Your task to perform on an android device: install app "PUBG MOBILE" Image 0: 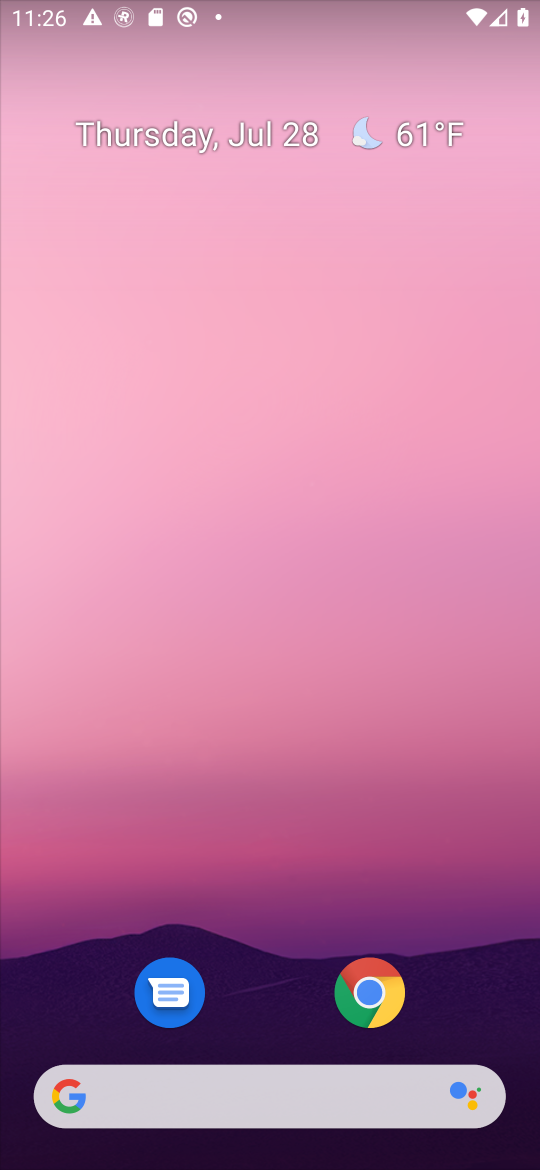
Step 0: drag from (235, 1080) to (268, 126)
Your task to perform on an android device: install app "PUBG MOBILE" Image 1: 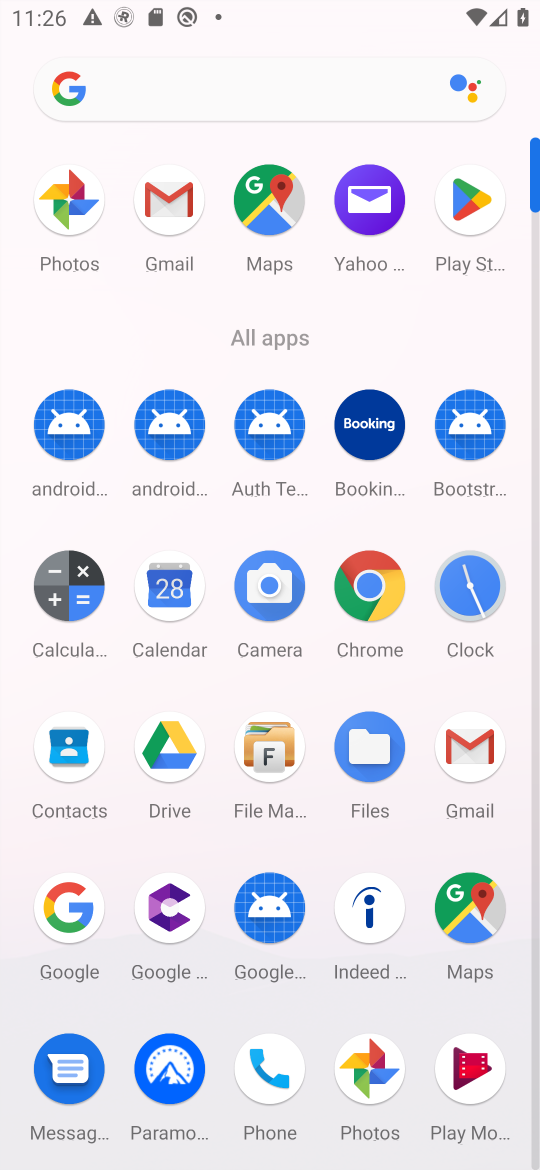
Step 1: click (472, 207)
Your task to perform on an android device: install app "PUBG MOBILE" Image 2: 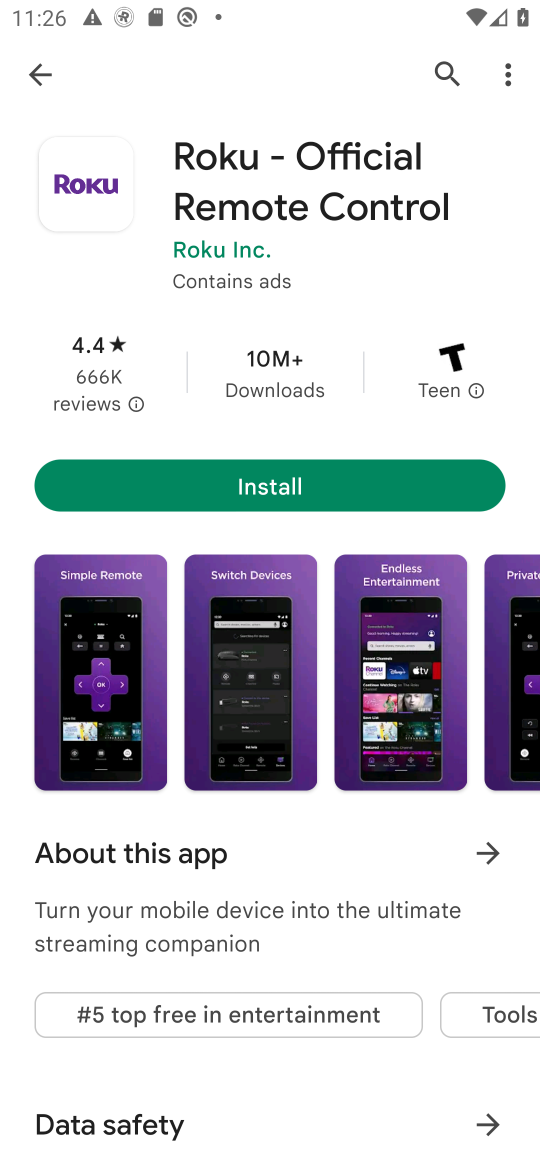
Step 2: click (450, 68)
Your task to perform on an android device: install app "PUBG MOBILE" Image 3: 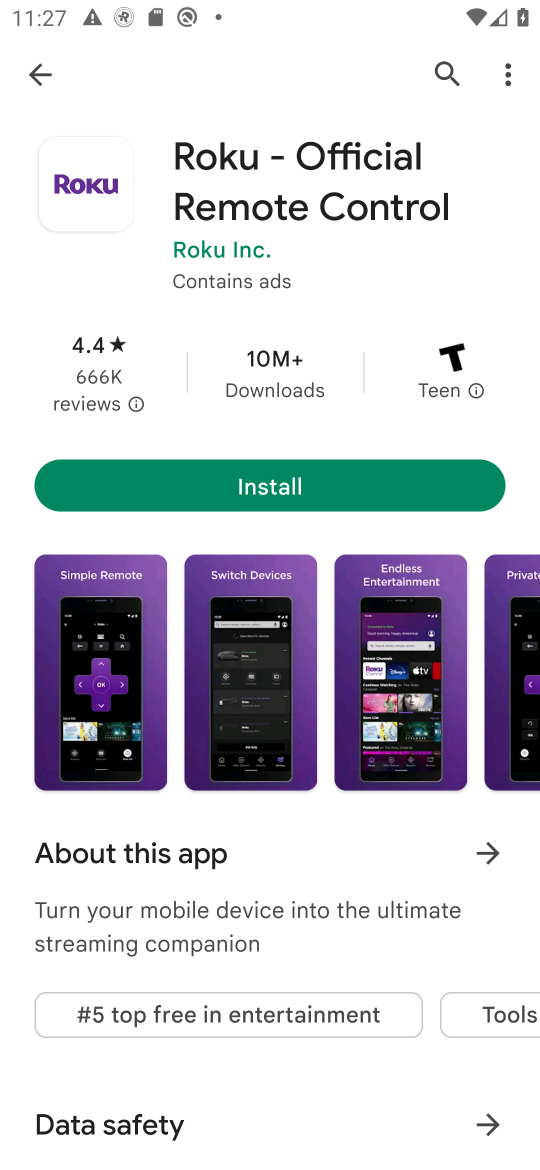
Step 3: click (446, 68)
Your task to perform on an android device: install app "PUBG MOBILE" Image 4: 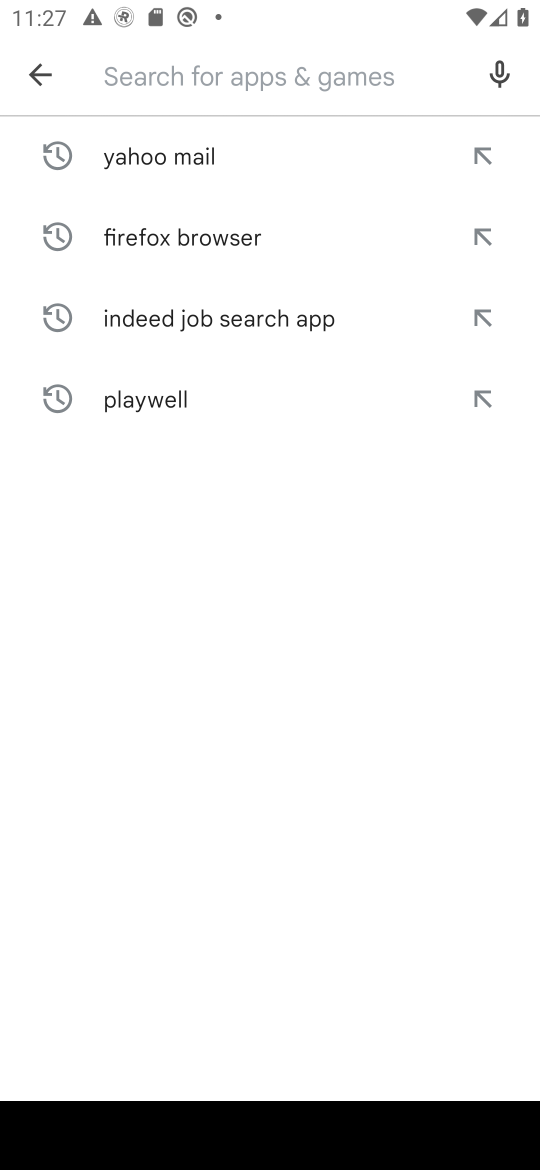
Step 4: type "PUBG MOBILE"
Your task to perform on an android device: install app "PUBG MOBILE" Image 5: 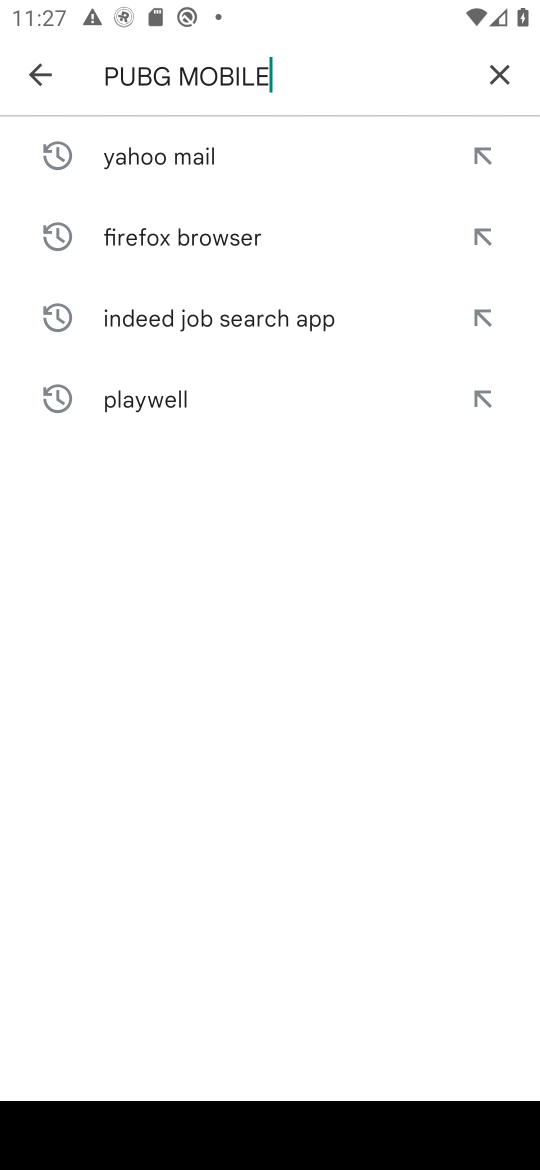
Step 5: type ""
Your task to perform on an android device: install app "PUBG MOBILE" Image 6: 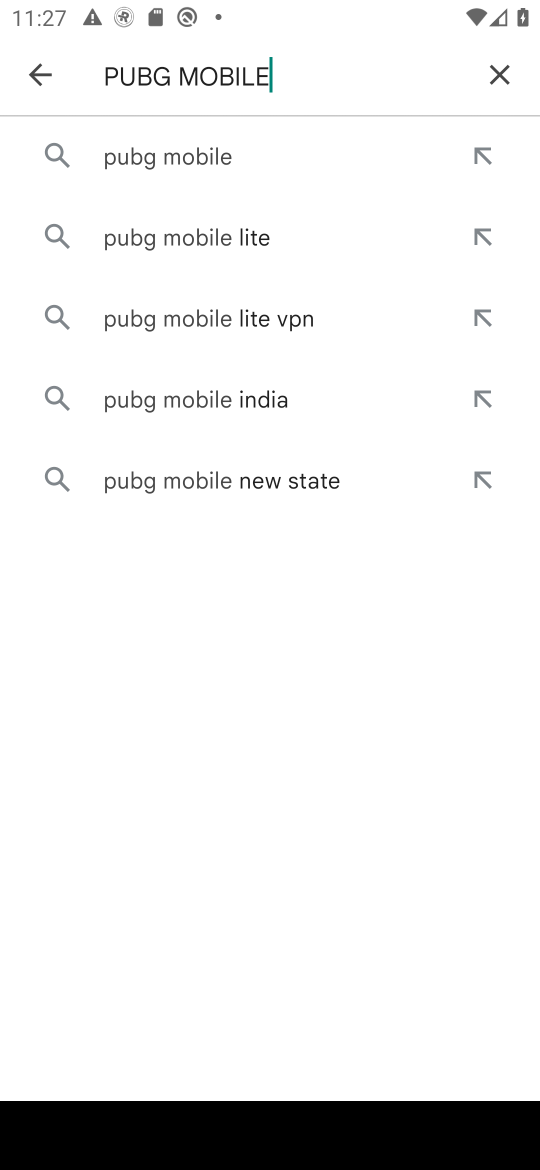
Step 6: click (217, 150)
Your task to perform on an android device: install app "PUBG MOBILE" Image 7: 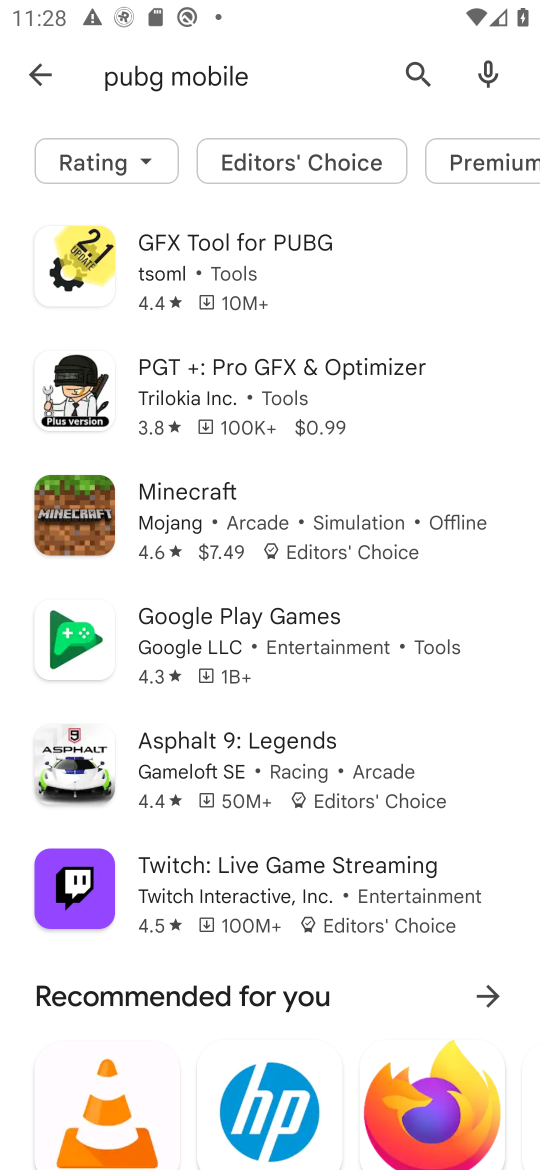
Step 7: task complete